Your task to perform on an android device: Turn on the flashlight Image 0: 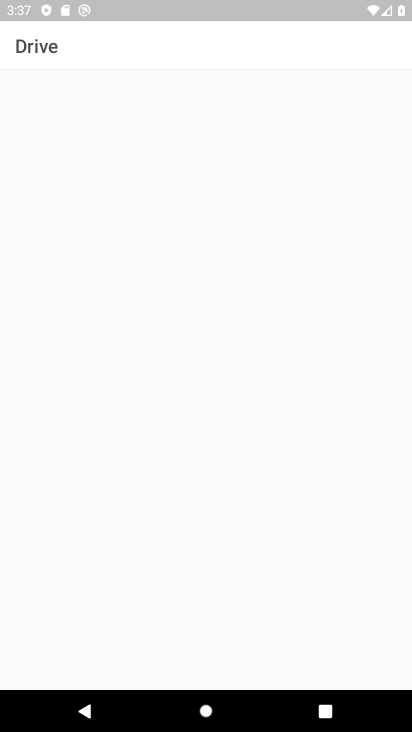
Step 0: press home button
Your task to perform on an android device: Turn on the flashlight Image 1: 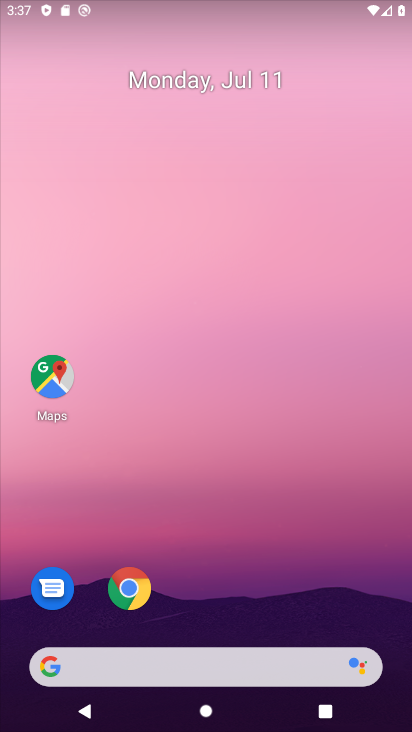
Step 1: drag from (247, 581) to (264, 172)
Your task to perform on an android device: Turn on the flashlight Image 2: 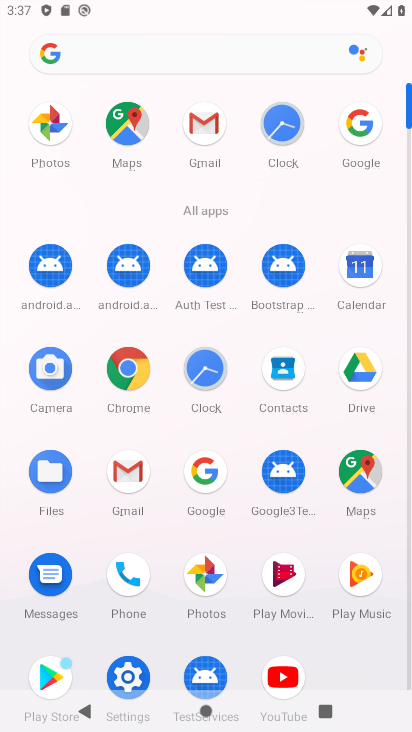
Step 2: click (125, 675)
Your task to perform on an android device: Turn on the flashlight Image 3: 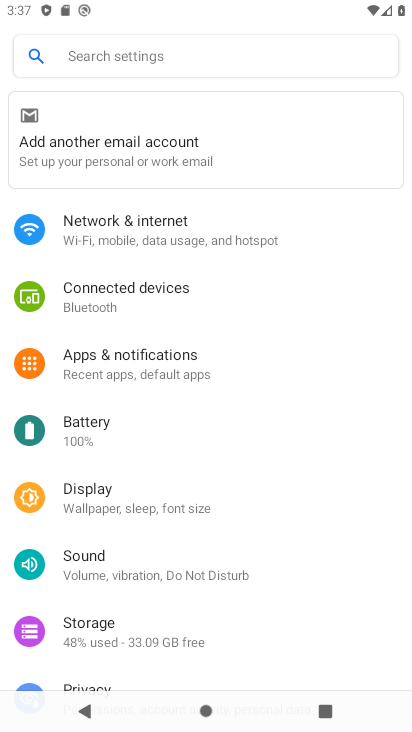
Step 3: drag from (158, 487) to (216, 338)
Your task to perform on an android device: Turn on the flashlight Image 4: 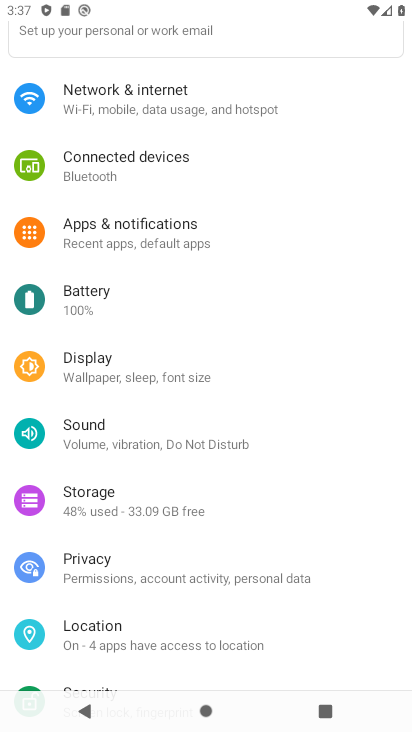
Step 4: drag from (138, 503) to (242, 380)
Your task to perform on an android device: Turn on the flashlight Image 5: 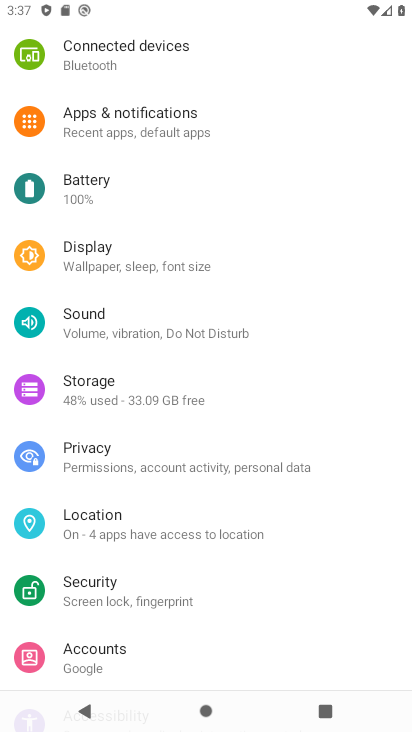
Step 5: drag from (164, 510) to (245, 411)
Your task to perform on an android device: Turn on the flashlight Image 6: 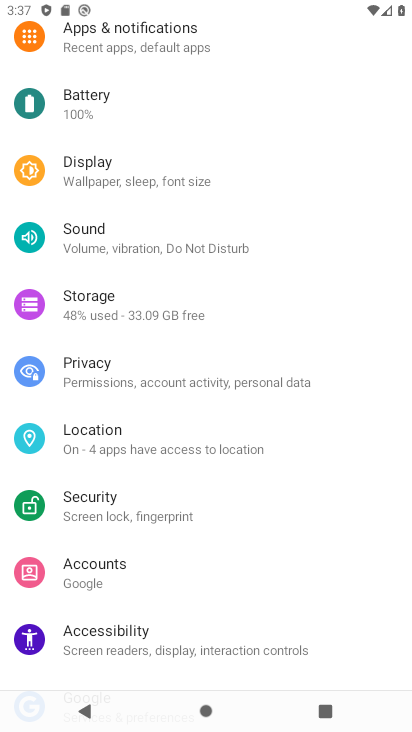
Step 6: click (118, 185)
Your task to perform on an android device: Turn on the flashlight Image 7: 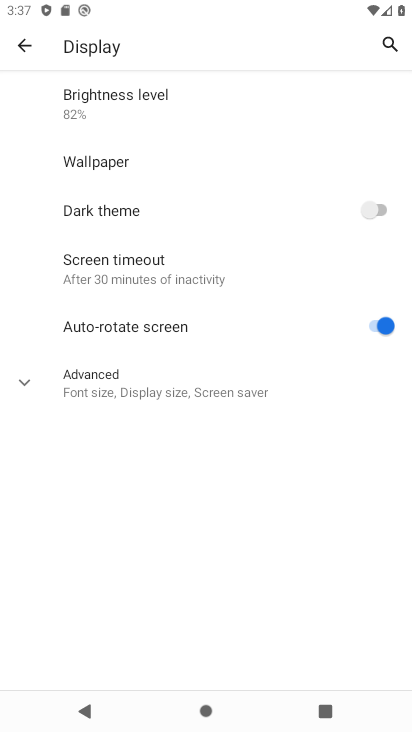
Step 7: click (130, 387)
Your task to perform on an android device: Turn on the flashlight Image 8: 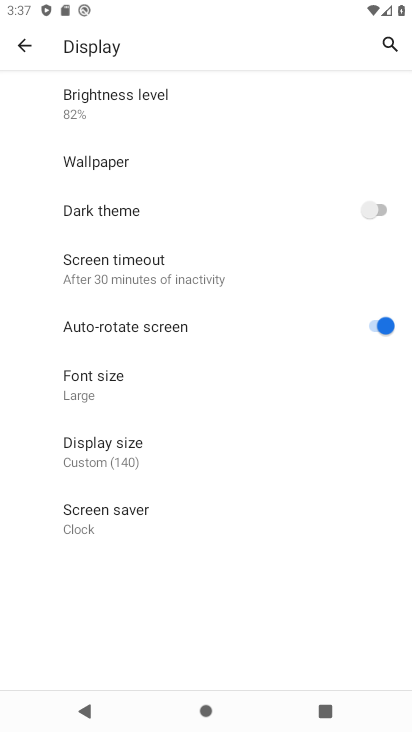
Step 8: press back button
Your task to perform on an android device: Turn on the flashlight Image 9: 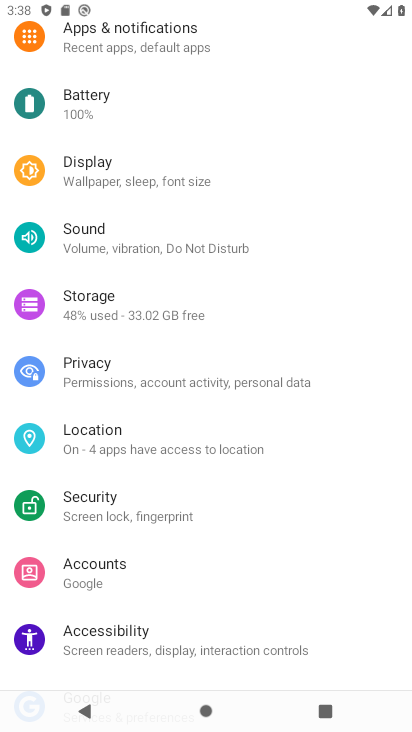
Step 9: drag from (145, 559) to (187, 417)
Your task to perform on an android device: Turn on the flashlight Image 10: 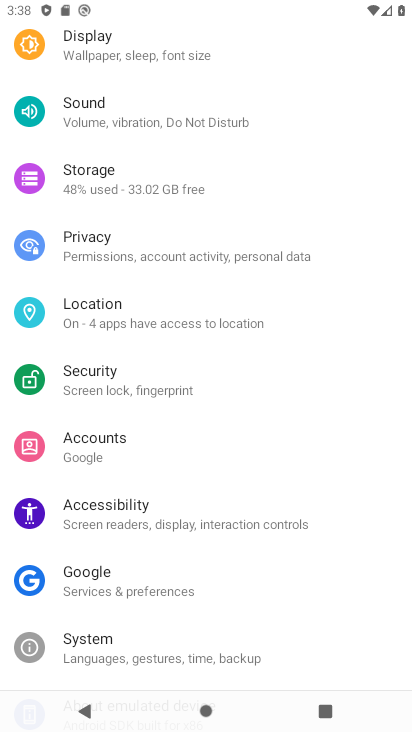
Step 10: drag from (171, 561) to (210, 453)
Your task to perform on an android device: Turn on the flashlight Image 11: 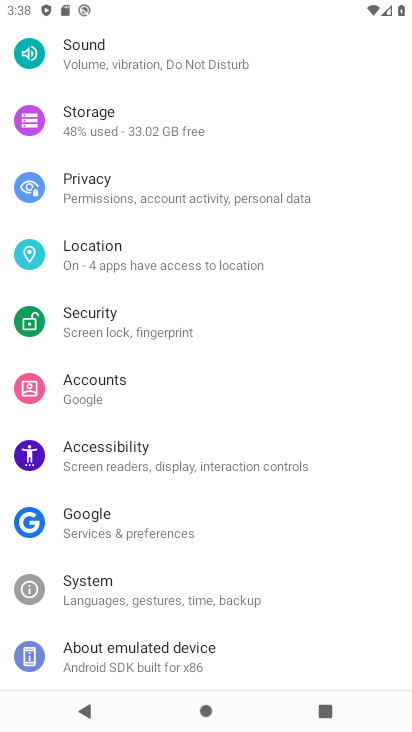
Step 11: click (130, 596)
Your task to perform on an android device: Turn on the flashlight Image 12: 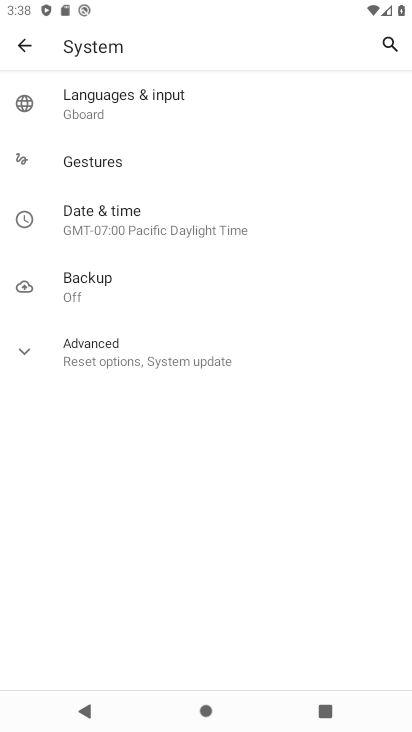
Step 12: task complete